Your task to perform on an android device: Open settings on Google Maps Image 0: 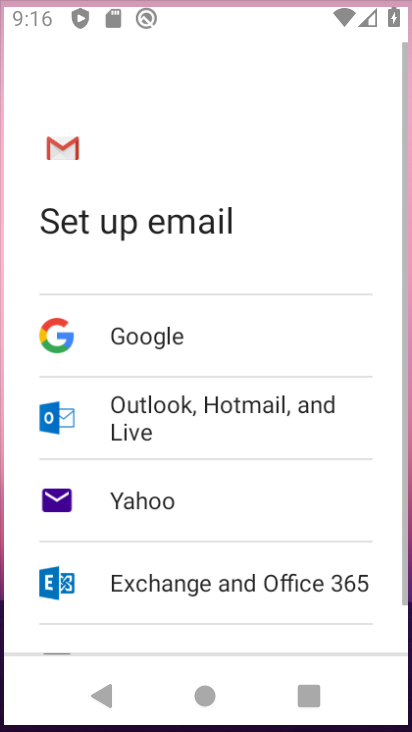
Step 0: drag from (358, 530) to (327, 183)
Your task to perform on an android device: Open settings on Google Maps Image 1: 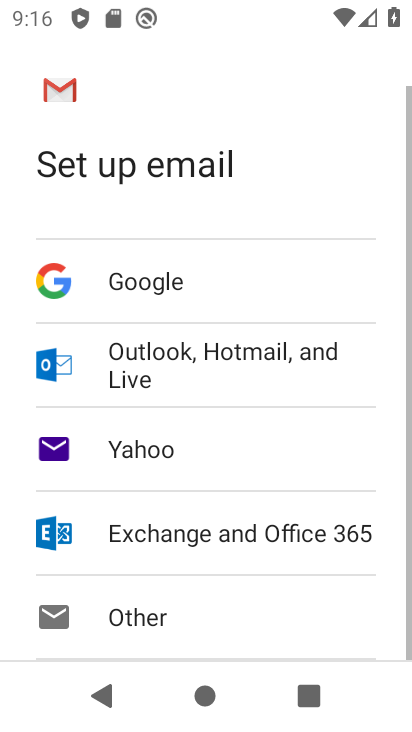
Step 1: press home button
Your task to perform on an android device: Open settings on Google Maps Image 2: 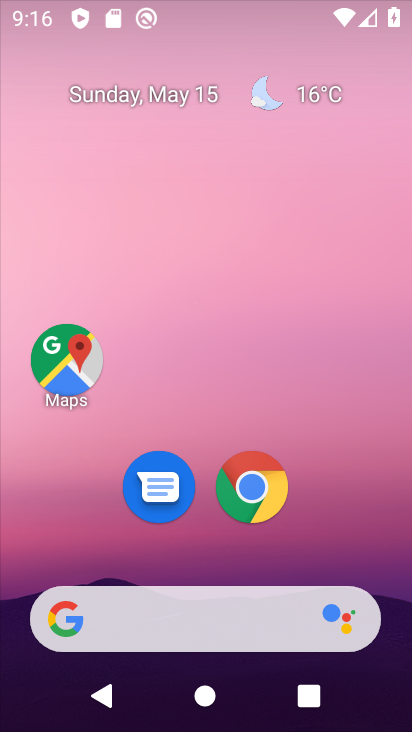
Step 2: drag from (381, 536) to (349, 161)
Your task to perform on an android device: Open settings on Google Maps Image 3: 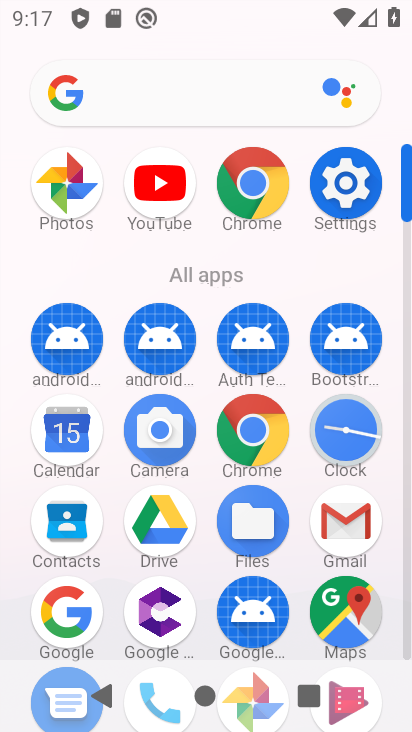
Step 3: drag from (304, 570) to (316, 306)
Your task to perform on an android device: Open settings on Google Maps Image 4: 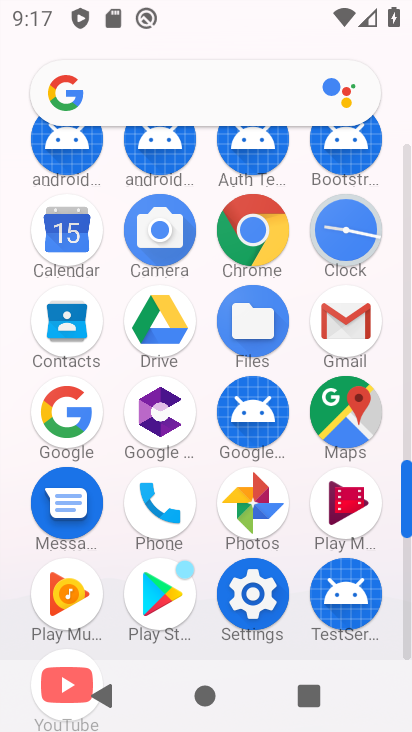
Step 4: click (333, 412)
Your task to perform on an android device: Open settings on Google Maps Image 5: 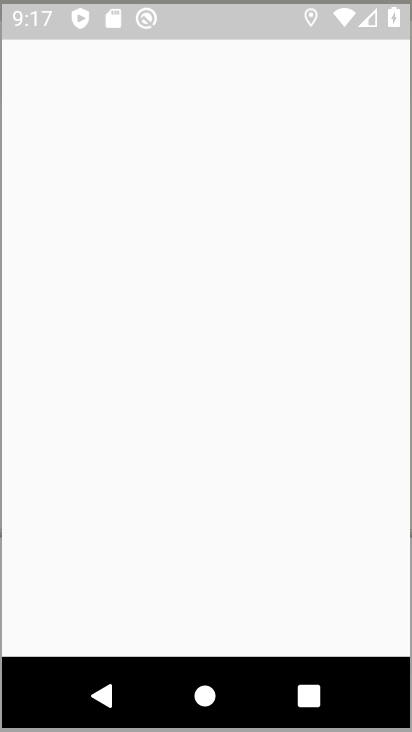
Step 5: click (370, 575)
Your task to perform on an android device: Open settings on Google Maps Image 6: 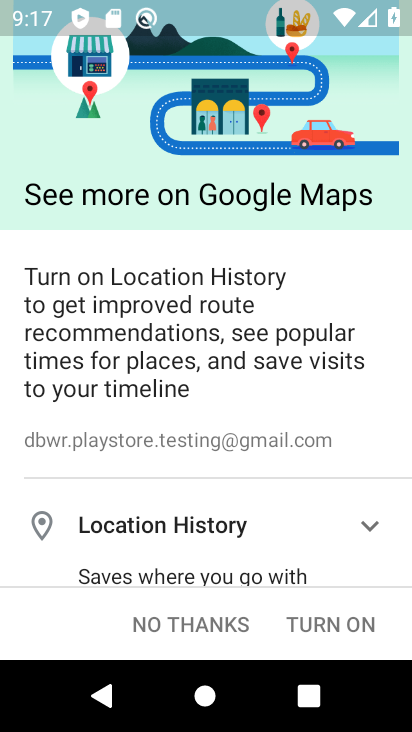
Step 6: click (203, 617)
Your task to perform on an android device: Open settings on Google Maps Image 7: 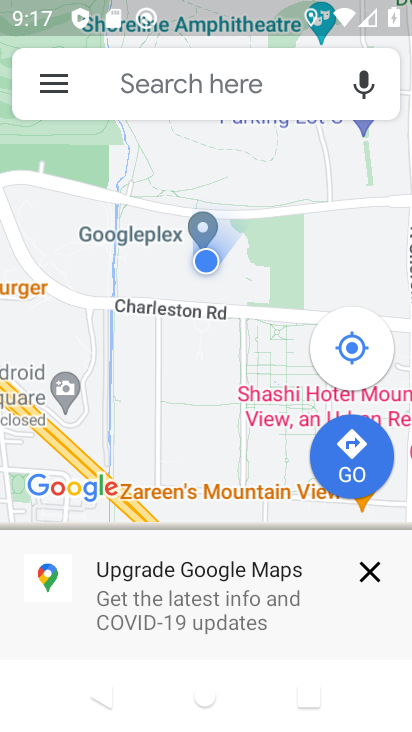
Step 7: click (355, 576)
Your task to perform on an android device: Open settings on Google Maps Image 8: 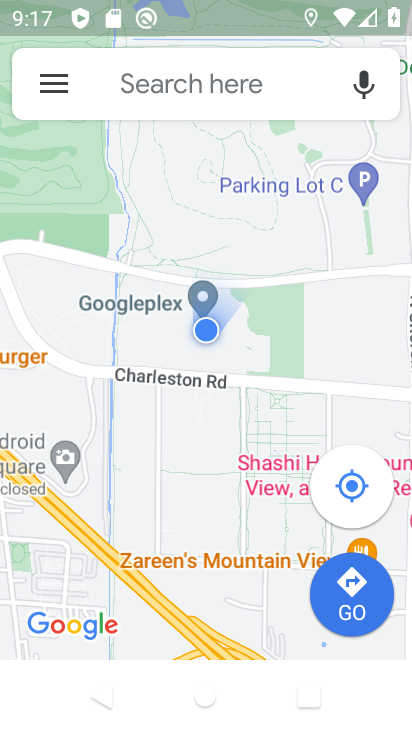
Step 8: task complete